Your task to perform on an android device: Open Youtube and go to the subscriptions tab Image 0: 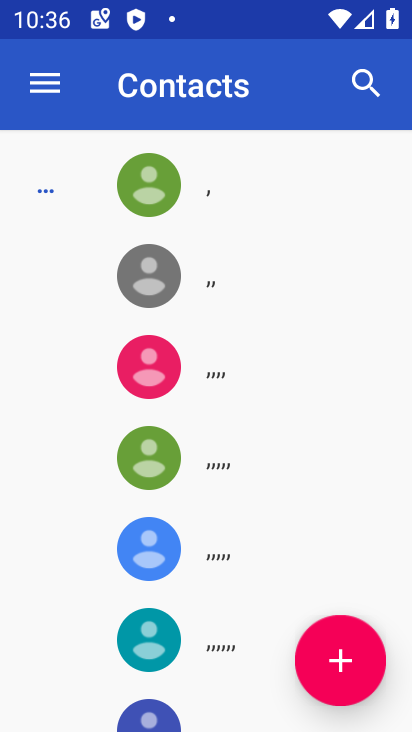
Step 0: press home button
Your task to perform on an android device: Open Youtube and go to the subscriptions tab Image 1: 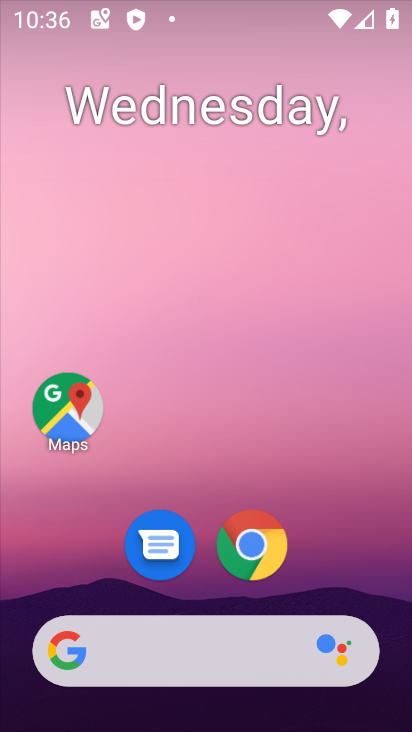
Step 1: drag from (194, 594) to (254, 197)
Your task to perform on an android device: Open Youtube and go to the subscriptions tab Image 2: 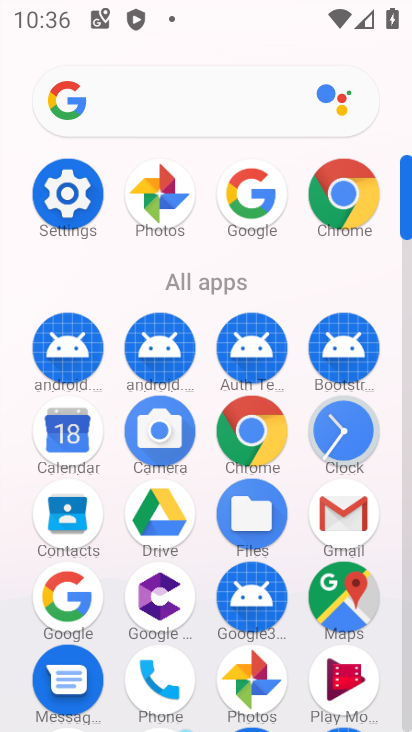
Step 2: drag from (253, 611) to (289, 228)
Your task to perform on an android device: Open Youtube and go to the subscriptions tab Image 3: 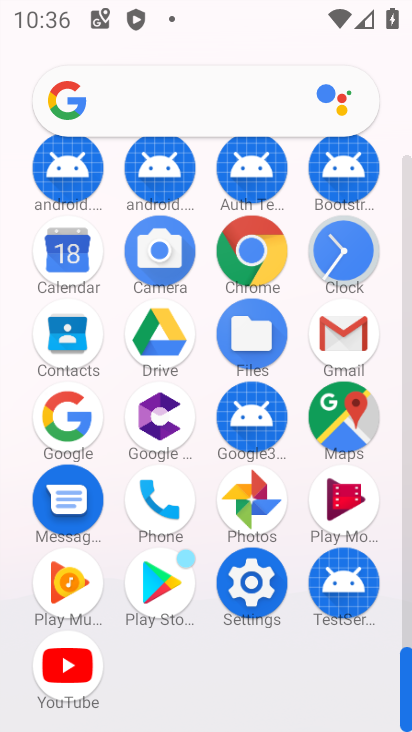
Step 3: drag from (240, 576) to (280, 294)
Your task to perform on an android device: Open Youtube and go to the subscriptions tab Image 4: 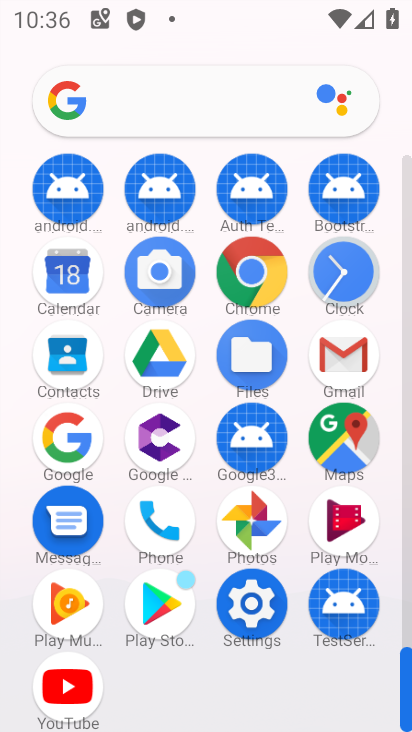
Step 4: click (66, 680)
Your task to perform on an android device: Open Youtube and go to the subscriptions tab Image 5: 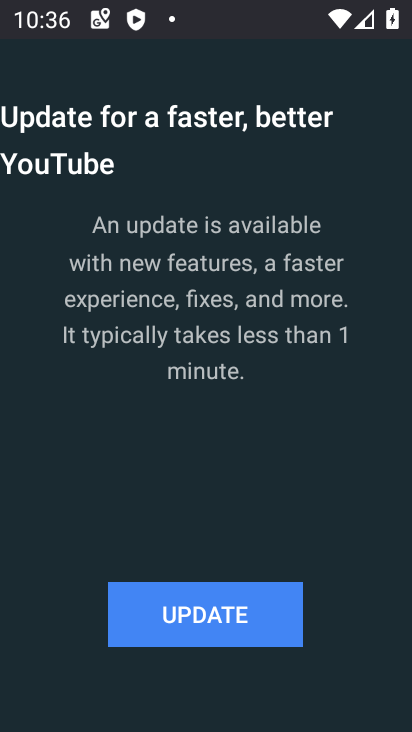
Step 5: click (236, 605)
Your task to perform on an android device: Open Youtube and go to the subscriptions tab Image 6: 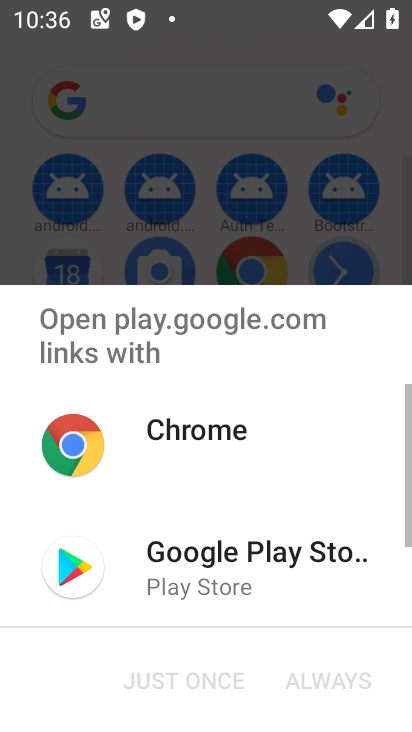
Step 6: click (183, 591)
Your task to perform on an android device: Open Youtube and go to the subscriptions tab Image 7: 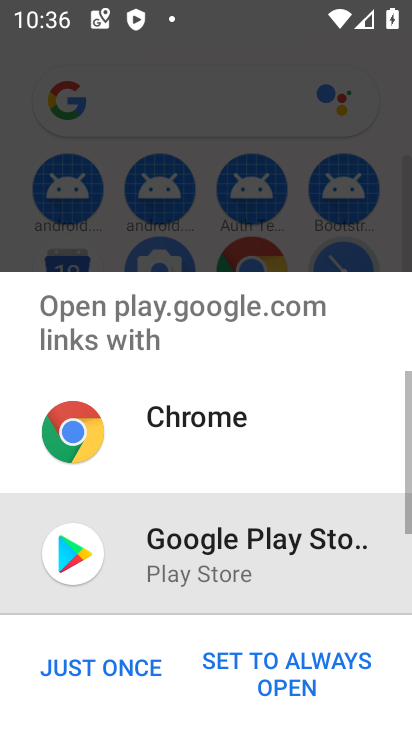
Step 7: click (126, 670)
Your task to perform on an android device: Open Youtube and go to the subscriptions tab Image 8: 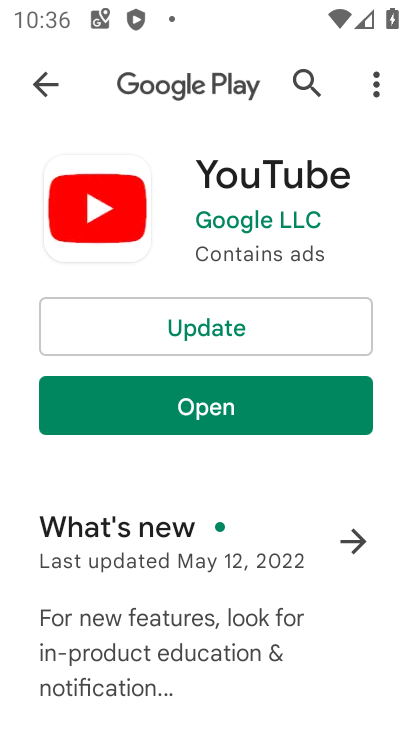
Step 8: click (168, 305)
Your task to perform on an android device: Open Youtube and go to the subscriptions tab Image 9: 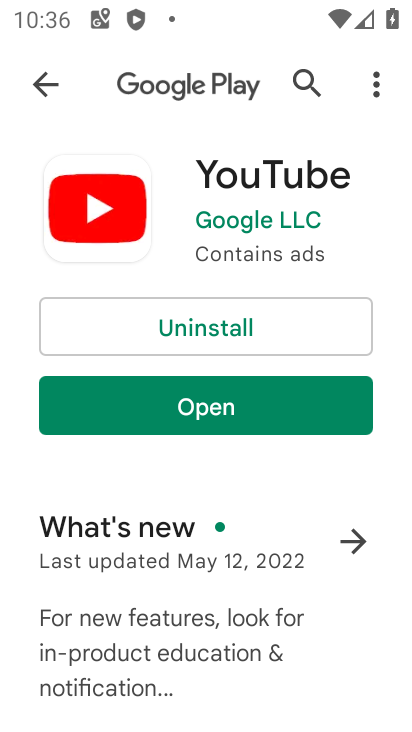
Step 9: click (208, 412)
Your task to perform on an android device: Open Youtube and go to the subscriptions tab Image 10: 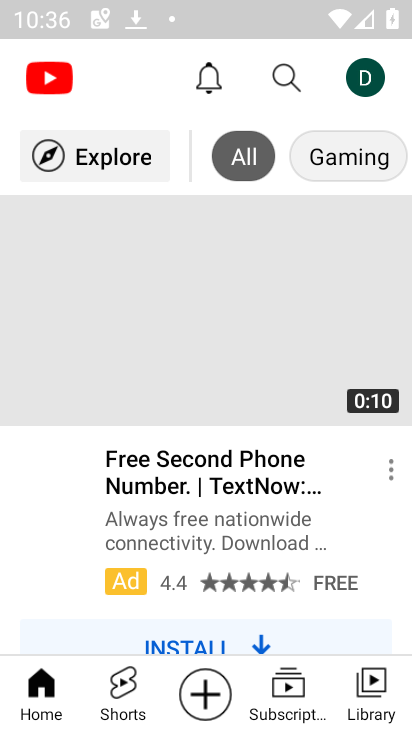
Step 10: click (282, 692)
Your task to perform on an android device: Open Youtube and go to the subscriptions tab Image 11: 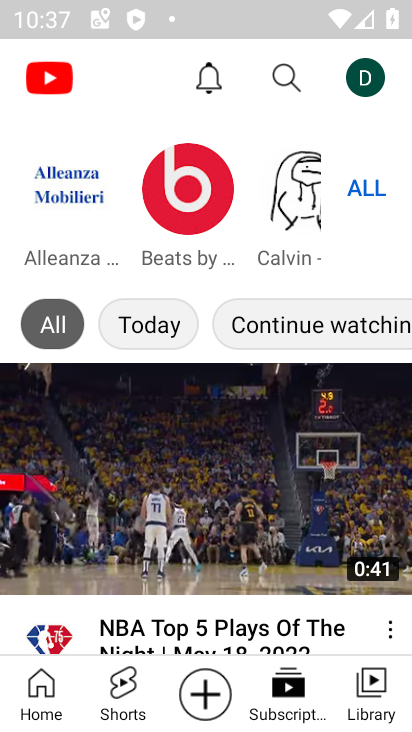
Step 11: task complete